Your task to perform on an android device: all mails in gmail Image 0: 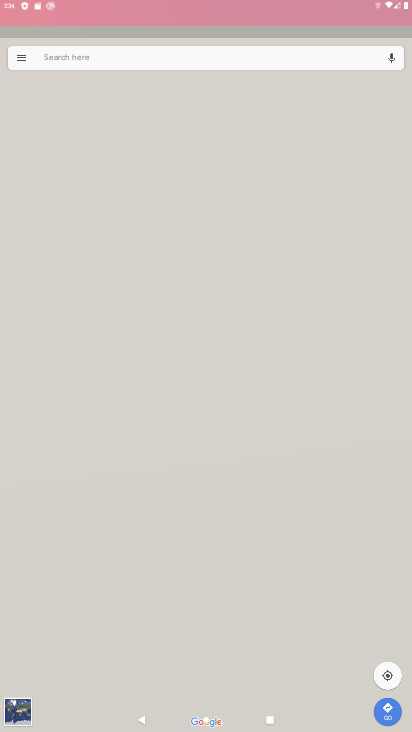
Step 0: press home button
Your task to perform on an android device: all mails in gmail Image 1: 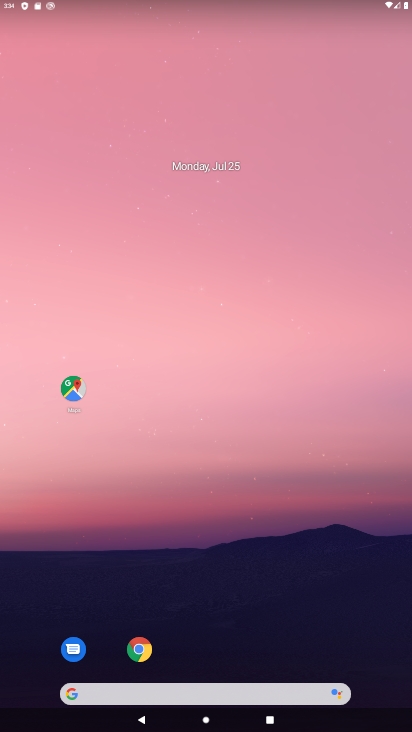
Step 1: drag from (263, 613) to (339, 128)
Your task to perform on an android device: all mails in gmail Image 2: 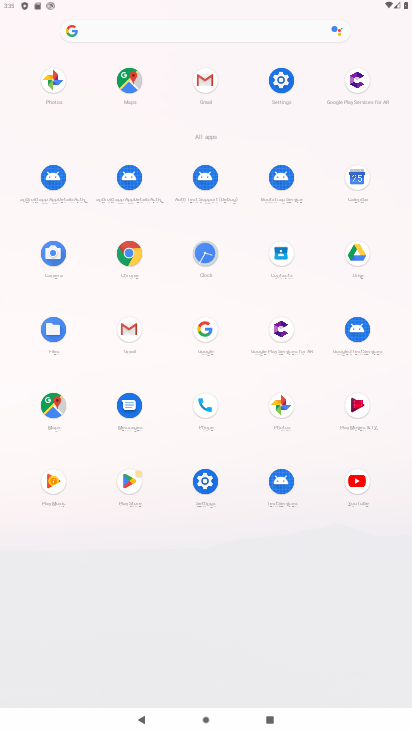
Step 2: click (132, 330)
Your task to perform on an android device: all mails in gmail Image 3: 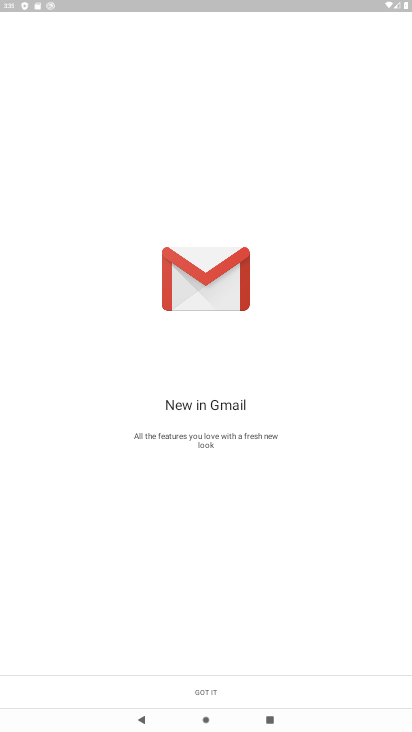
Step 3: click (194, 694)
Your task to perform on an android device: all mails in gmail Image 4: 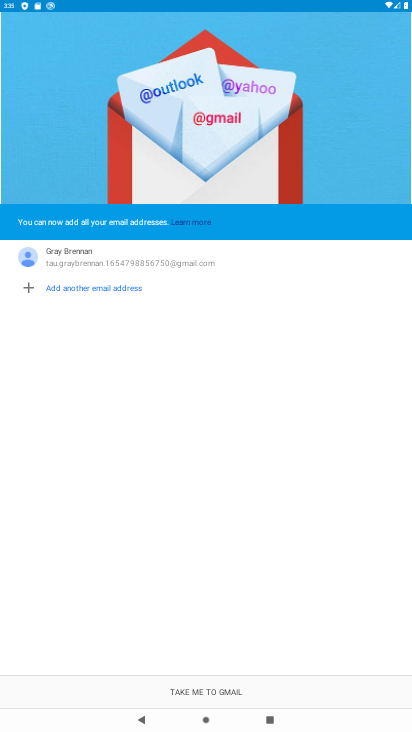
Step 4: click (216, 696)
Your task to perform on an android device: all mails in gmail Image 5: 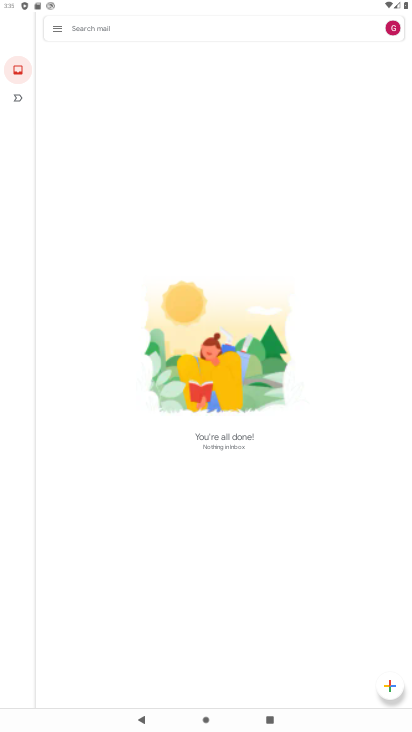
Step 5: click (60, 29)
Your task to perform on an android device: all mails in gmail Image 6: 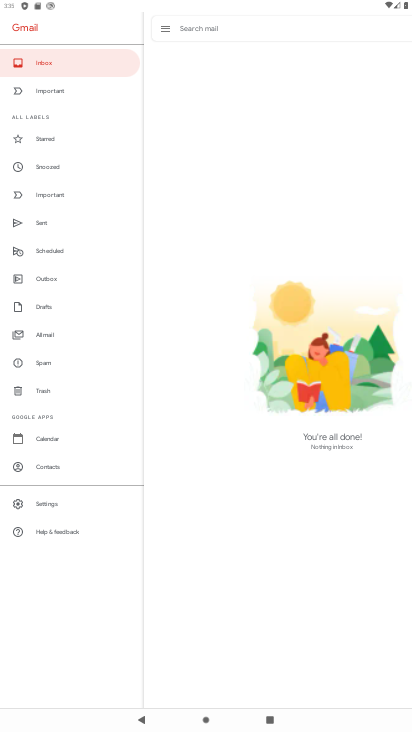
Step 6: click (56, 335)
Your task to perform on an android device: all mails in gmail Image 7: 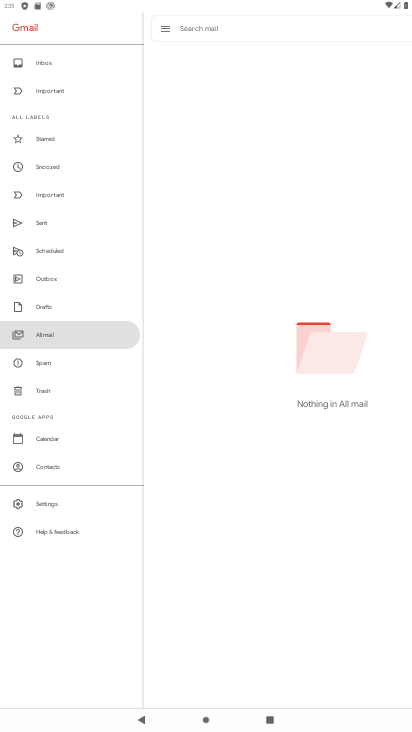
Step 7: task complete